Your task to perform on an android device: Search for razer thresher on target, select the first entry, add it to the cart, then select checkout. Image 0: 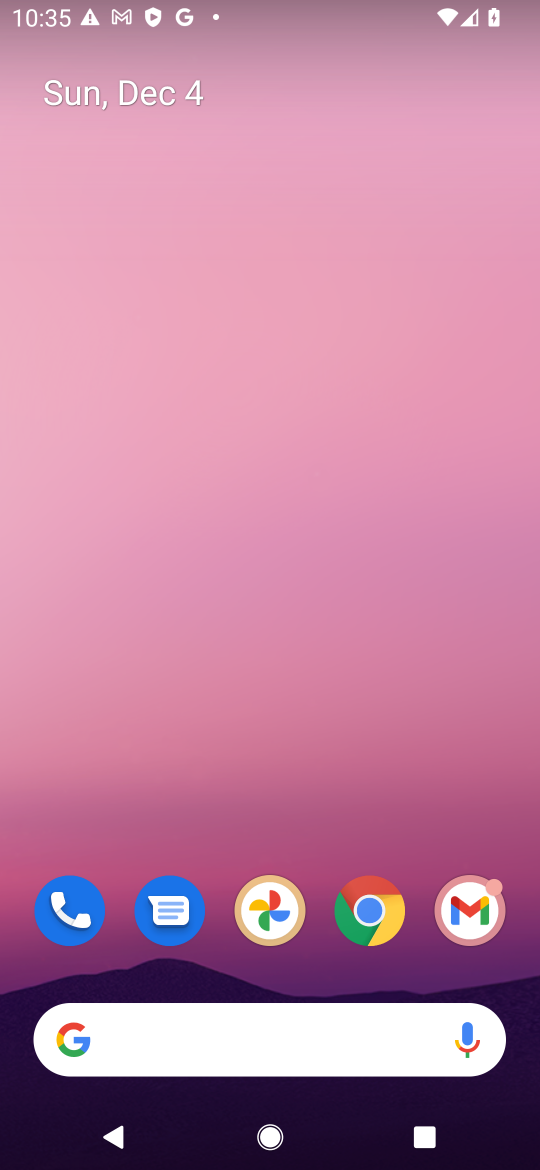
Step 0: drag from (336, 1110) to (451, 68)
Your task to perform on an android device: Search for razer thresher on target, select the first entry, add it to the cart, then select checkout. Image 1: 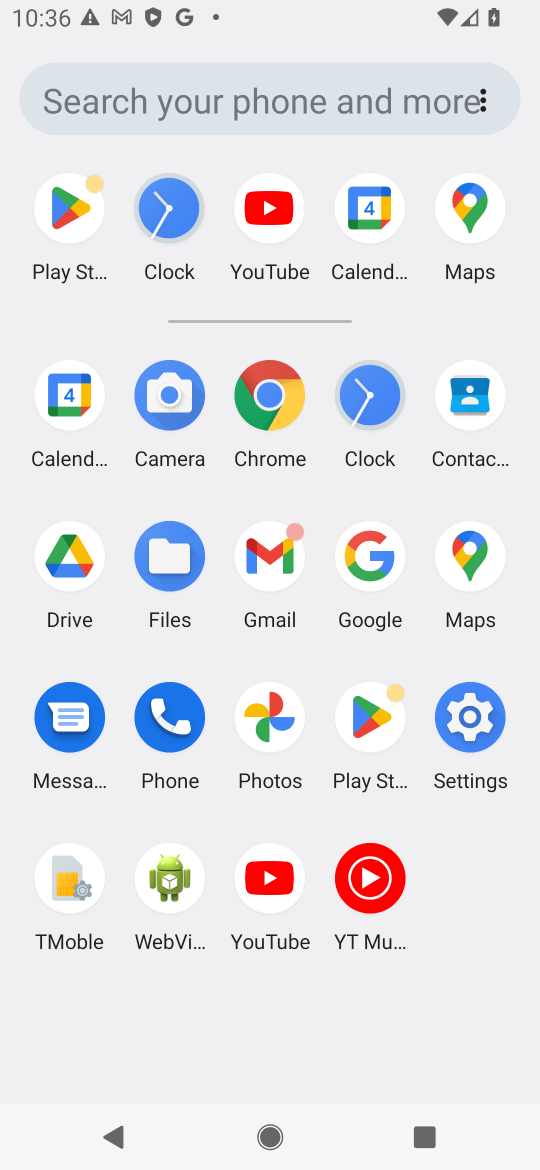
Step 1: click (270, 398)
Your task to perform on an android device: Search for razer thresher on target, select the first entry, add it to the cart, then select checkout. Image 2: 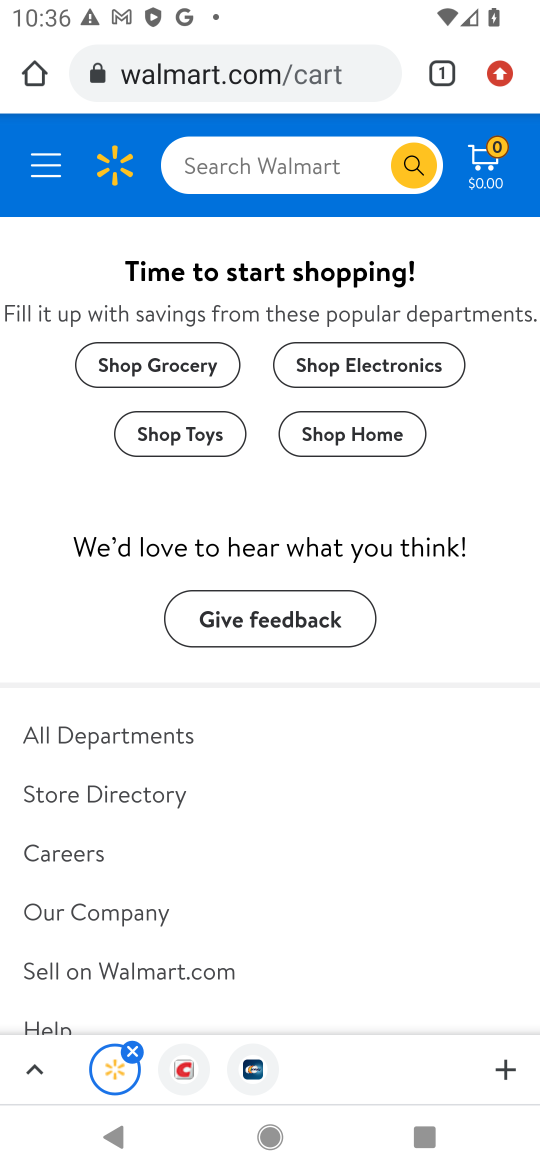
Step 2: click (270, 62)
Your task to perform on an android device: Search for razer thresher on target, select the first entry, add it to the cart, then select checkout. Image 3: 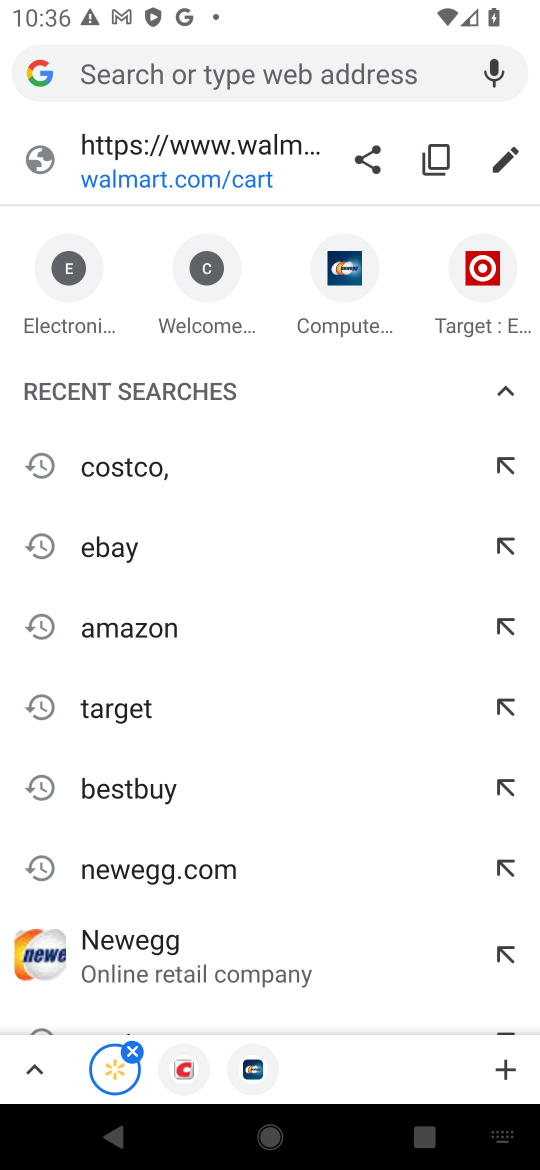
Step 3: type " target"
Your task to perform on an android device: Search for razer thresher on target, select the first entry, add it to the cart, then select checkout. Image 4: 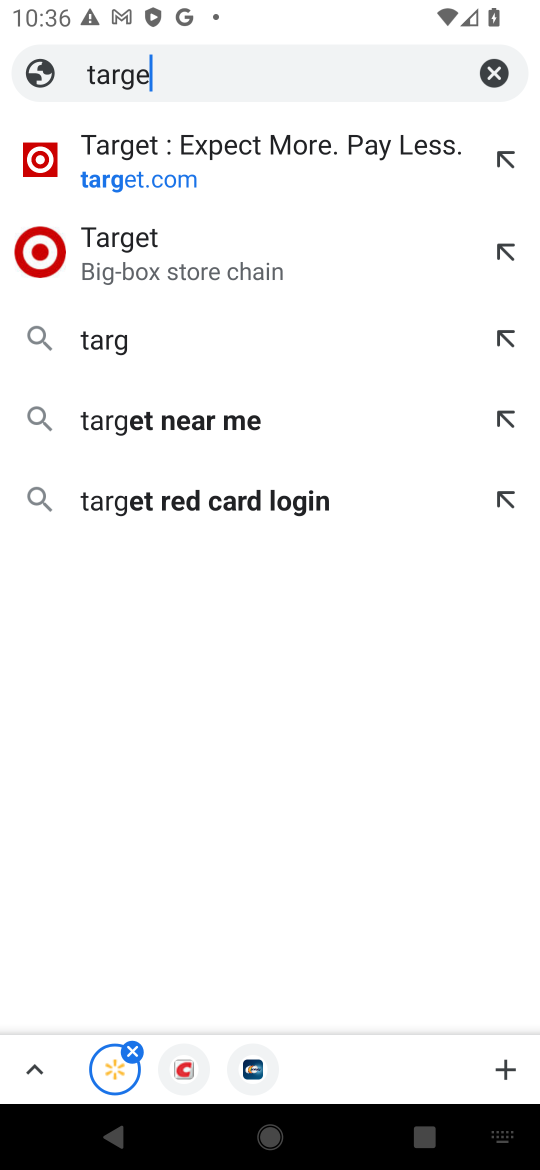
Step 4: type ""
Your task to perform on an android device: Search for razer thresher on target, select the first entry, add it to the cart, then select checkout. Image 5: 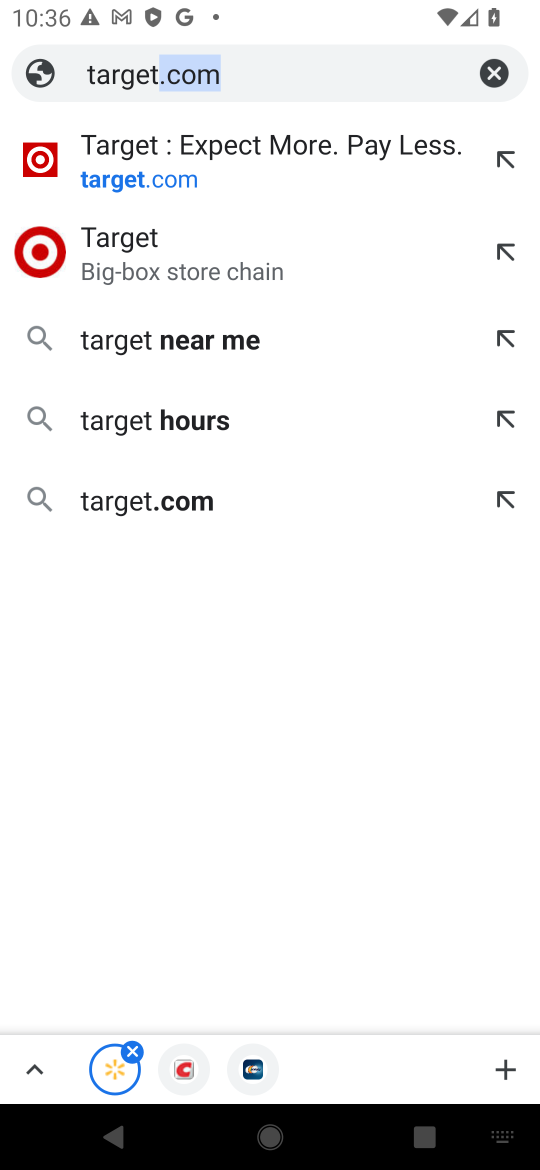
Step 5: click (160, 177)
Your task to perform on an android device: Search for razer thresher on target, select the first entry, add it to the cart, then select checkout. Image 6: 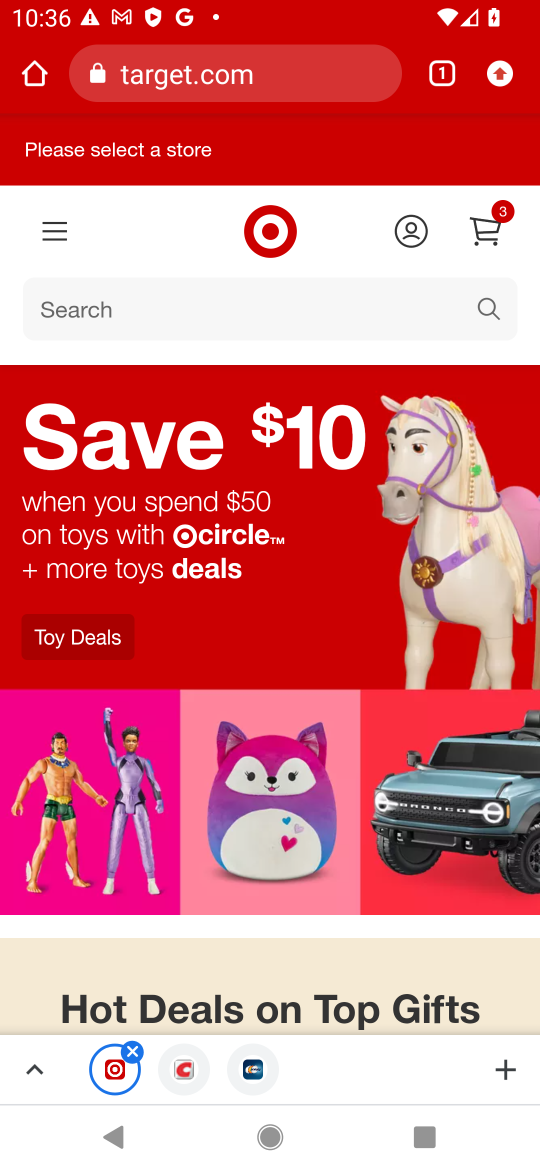
Step 6: click (412, 291)
Your task to perform on an android device: Search for razer thresher on target, select the first entry, add it to the cart, then select checkout. Image 7: 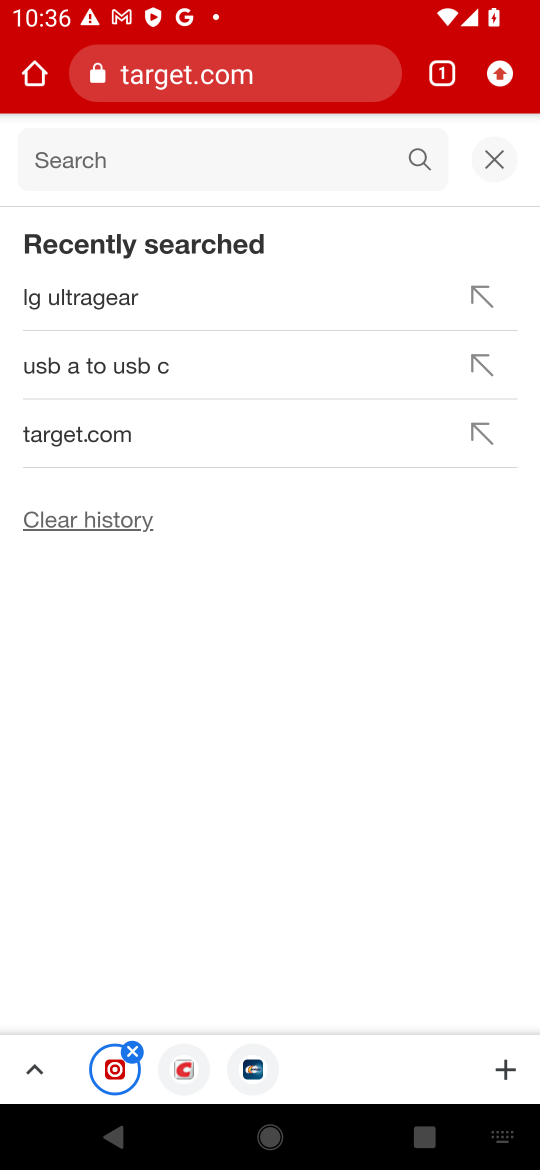
Step 7: type " razer thresher"
Your task to perform on an android device: Search for razer thresher on target, select the first entry, add it to the cart, then select checkout. Image 8: 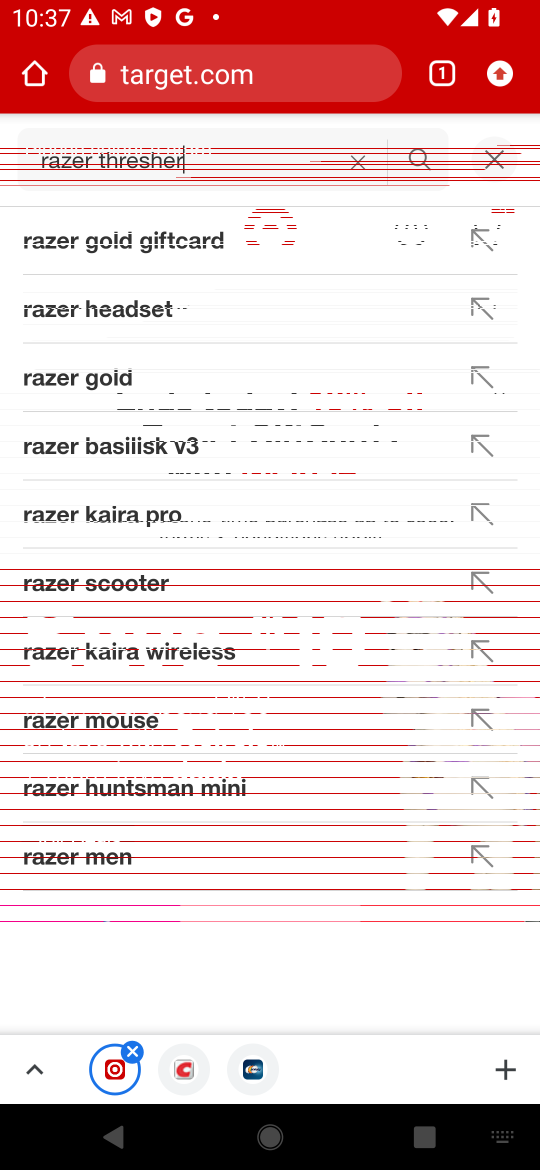
Step 8: click (416, 155)
Your task to perform on an android device: Search for razer thresher on target, select the first entry, add it to the cart, then select checkout. Image 9: 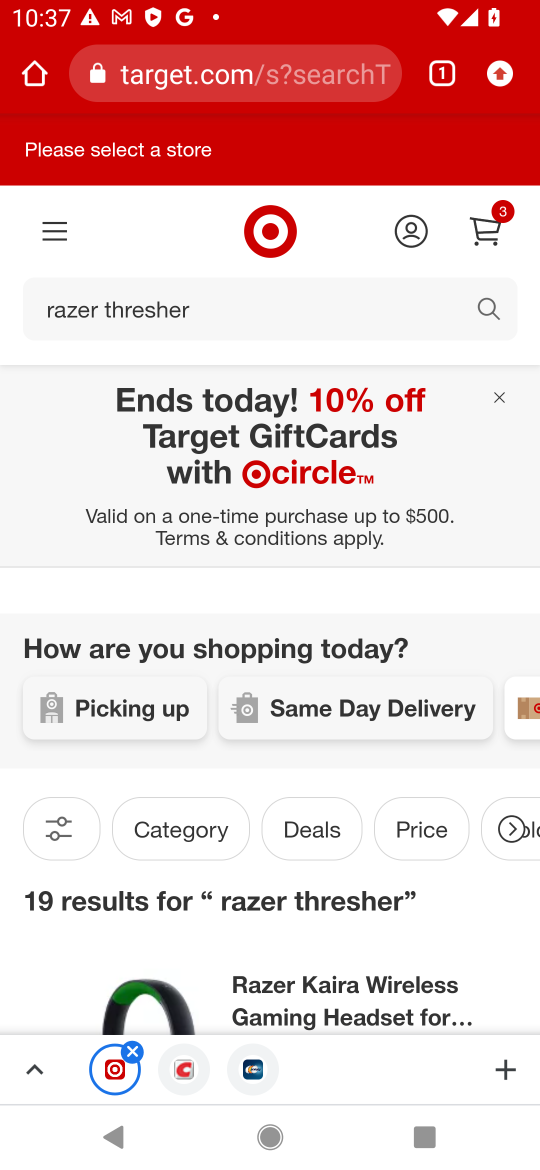
Step 9: drag from (346, 673) to (385, 334)
Your task to perform on an android device: Search for razer thresher on target, select the first entry, add it to the cart, then select checkout. Image 10: 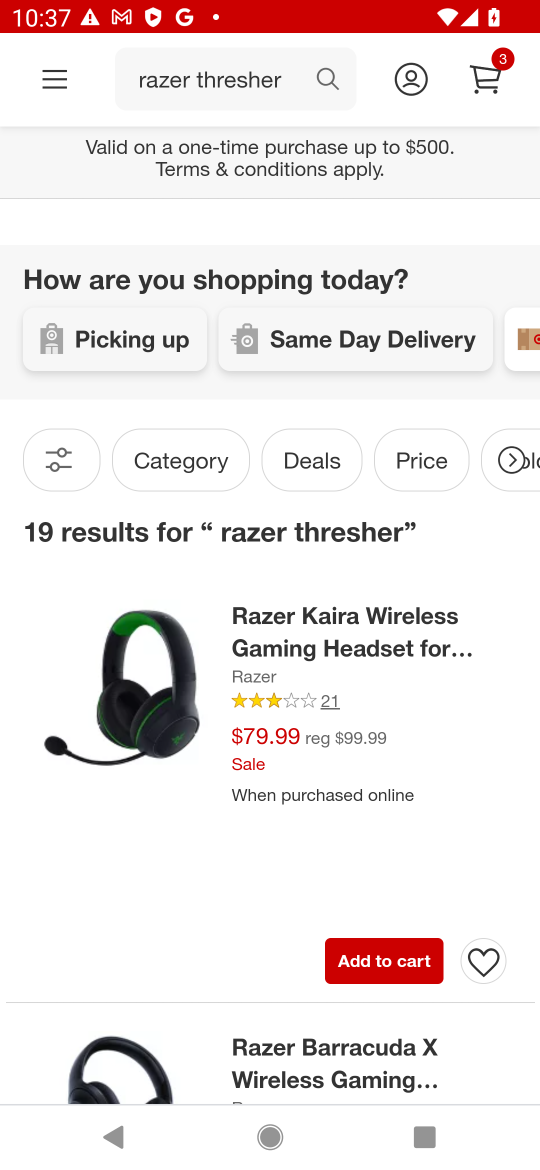
Step 10: click (206, 664)
Your task to perform on an android device: Search for razer thresher on target, select the first entry, add it to the cart, then select checkout. Image 11: 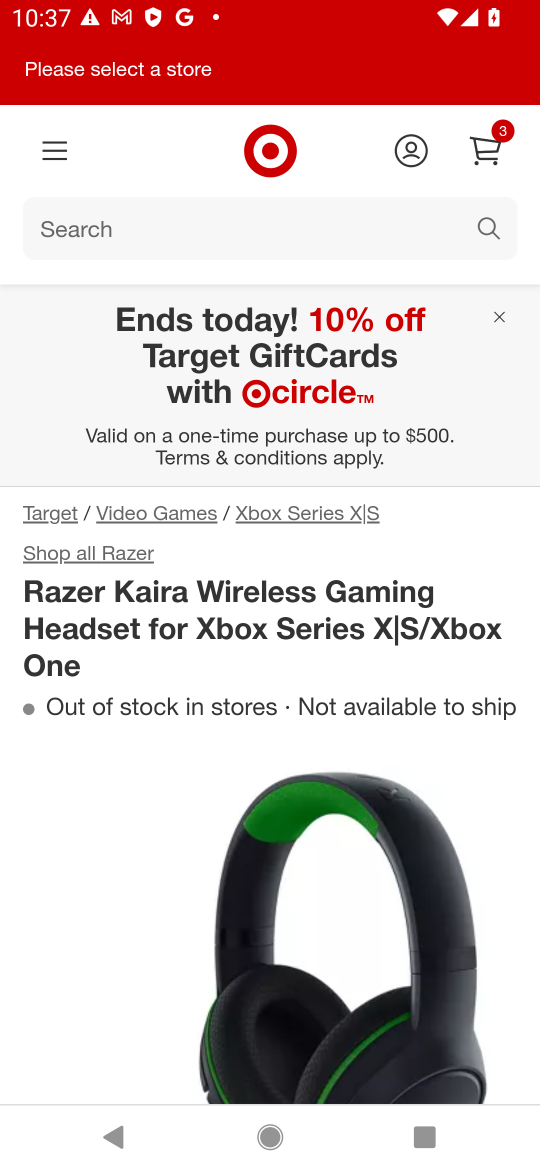
Step 11: drag from (197, 769) to (193, 245)
Your task to perform on an android device: Search for razer thresher on target, select the first entry, add it to the cart, then select checkout. Image 12: 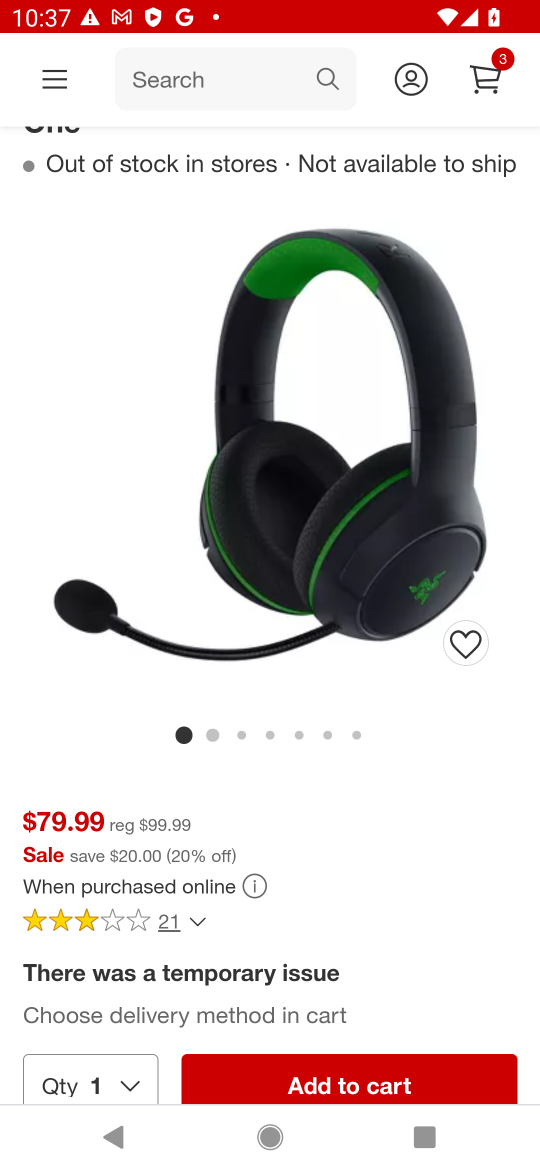
Step 12: click (372, 1083)
Your task to perform on an android device: Search for razer thresher on target, select the first entry, add it to the cart, then select checkout. Image 13: 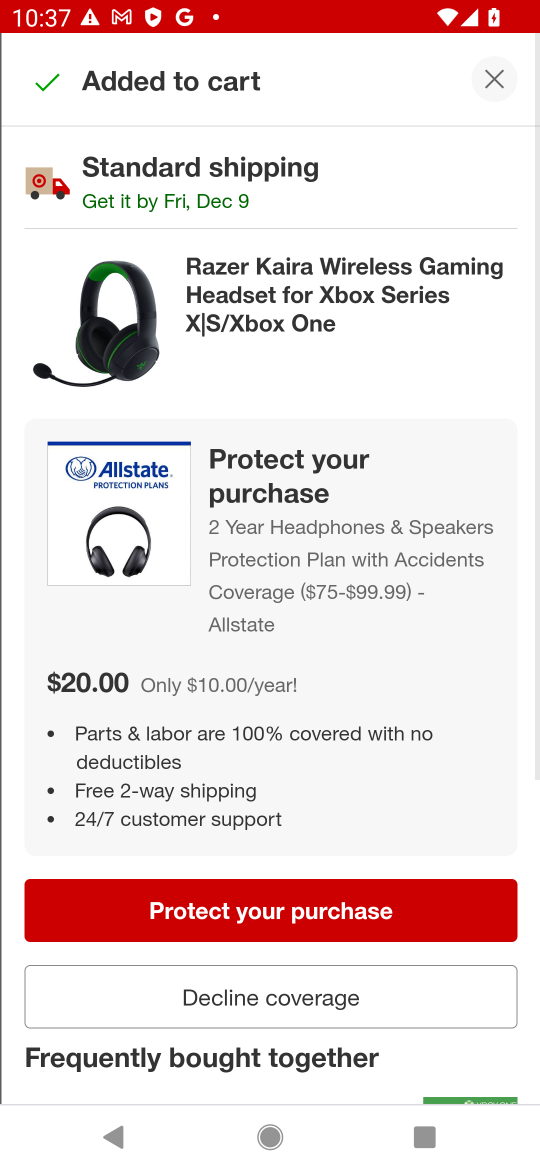
Step 13: task complete